Your task to perform on an android device: set default search engine in the chrome app Image 0: 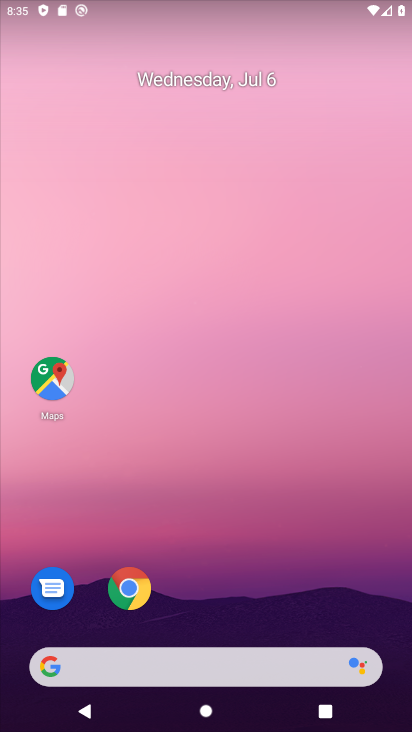
Step 0: drag from (186, 608) to (240, 215)
Your task to perform on an android device: set default search engine in the chrome app Image 1: 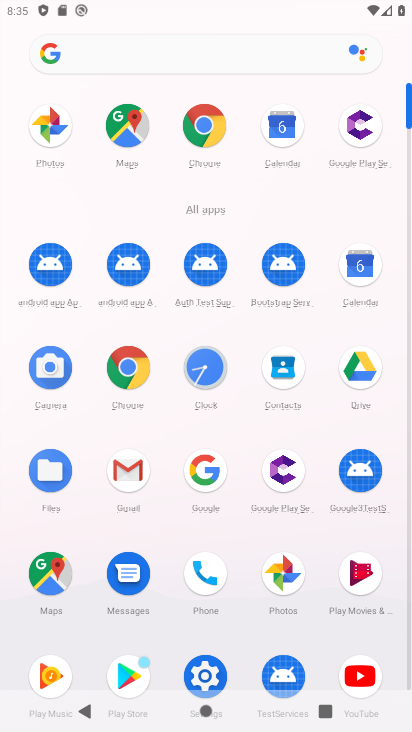
Step 1: click (107, 370)
Your task to perform on an android device: set default search engine in the chrome app Image 2: 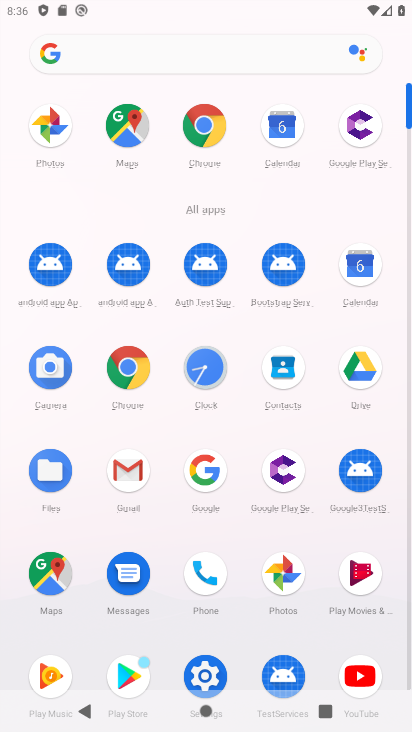
Step 2: click (107, 370)
Your task to perform on an android device: set default search engine in the chrome app Image 3: 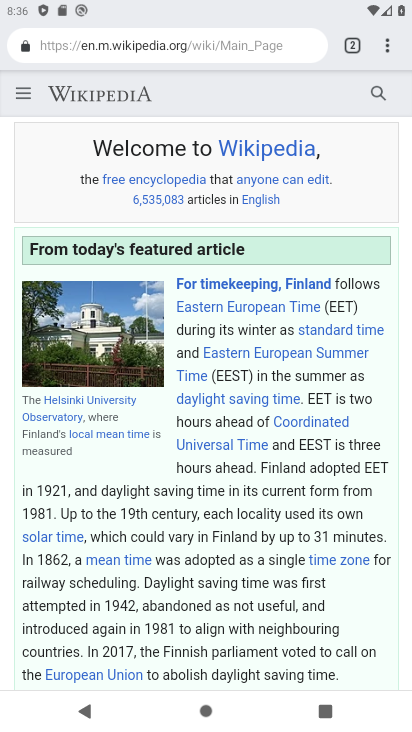
Step 3: drag from (201, 166) to (286, 667)
Your task to perform on an android device: set default search engine in the chrome app Image 4: 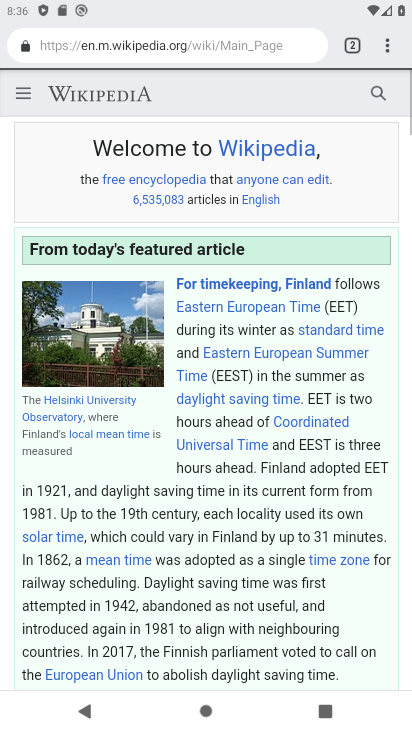
Step 4: click (392, 48)
Your task to perform on an android device: set default search engine in the chrome app Image 5: 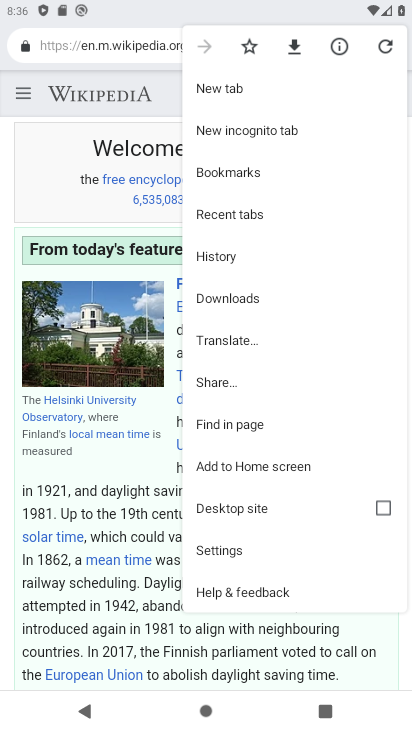
Step 5: click (209, 548)
Your task to perform on an android device: set default search engine in the chrome app Image 6: 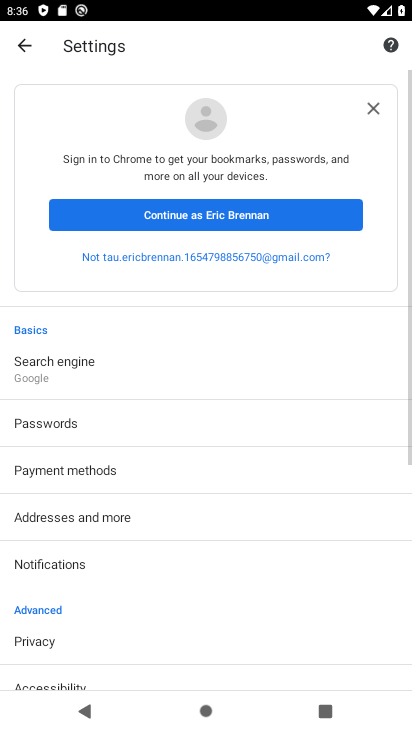
Step 6: click (102, 365)
Your task to perform on an android device: set default search engine in the chrome app Image 7: 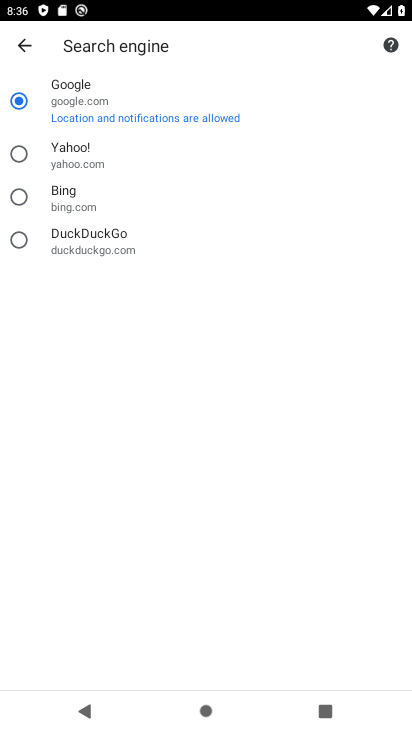
Step 7: click (116, 108)
Your task to perform on an android device: set default search engine in the chrome app Image 8: 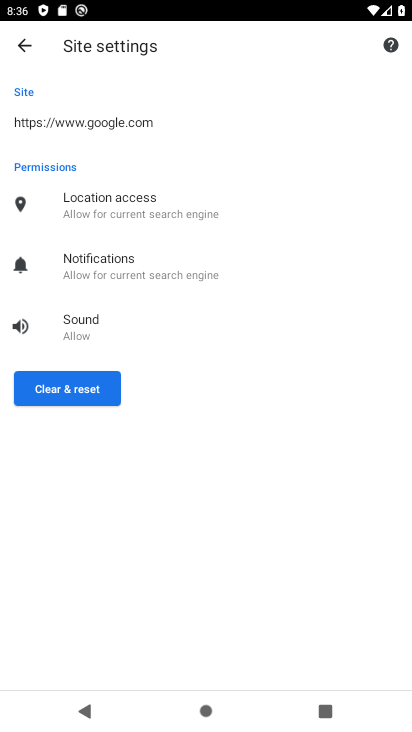
Step 8: task complete